Your task to perform on an android device: find photos in the google photos app Image 0: 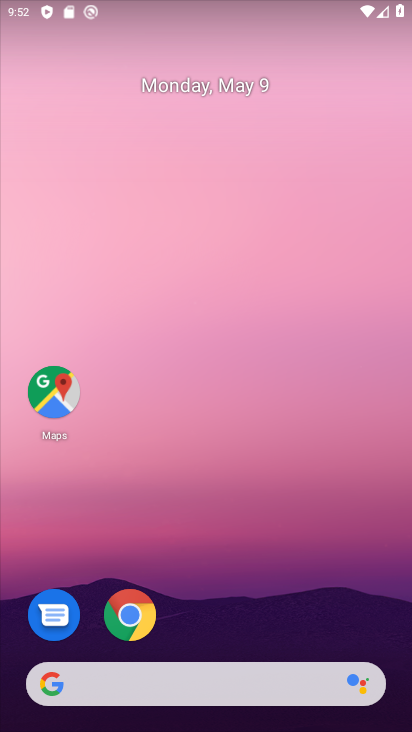
Step 0: drag from (213, 621) to (289, 272)
Your task to perform on an android device: find photos in the google photos app Image 1: 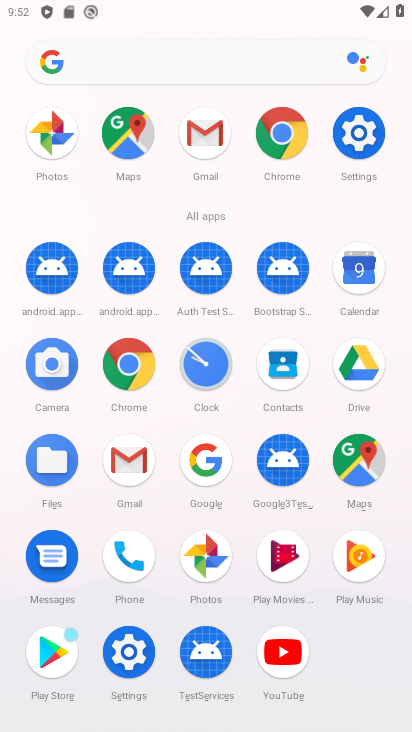
Step 1: click (50, 131)
Your task to perform on an android device: find photos in the google photos app Image 2: 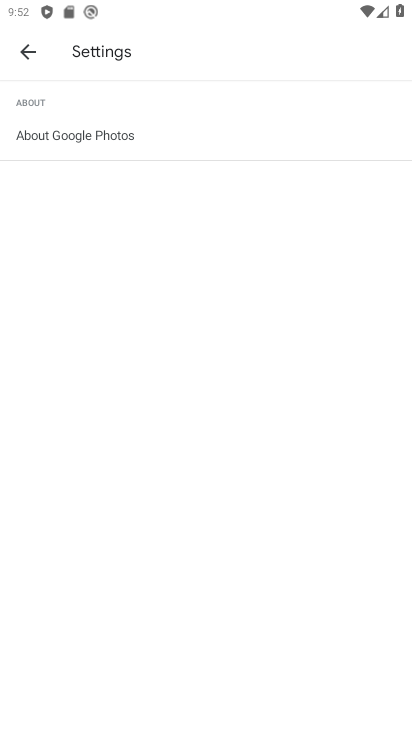
Step 2: click (29, 49)
Your task to perform on an android device: find photos in the google photos app Image 3: 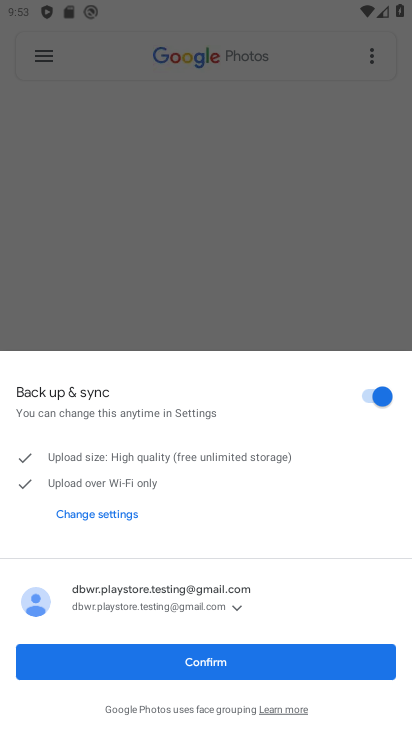
Step 3: click (199, 665)
Your task to perform on an android device: find photos in the google photos app Image 4: 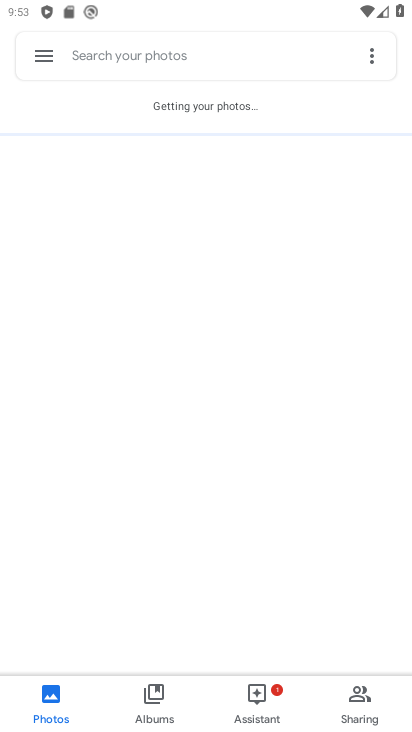
Step 4: click (142, 712)
Your task to perform on an android device: find photos in the google photos app Image 5: 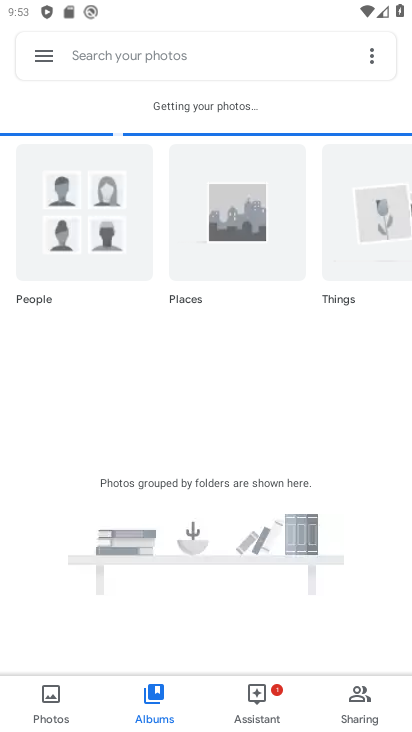
Step 5: task complete